Your task to perform on an android device: Go to notification settings Image 0: 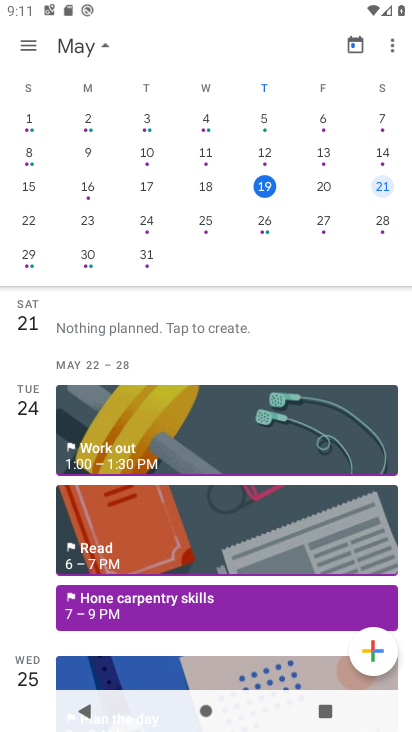
Step 0: press home button
Your task to perform on an android device: Go to notification settings Image 1: 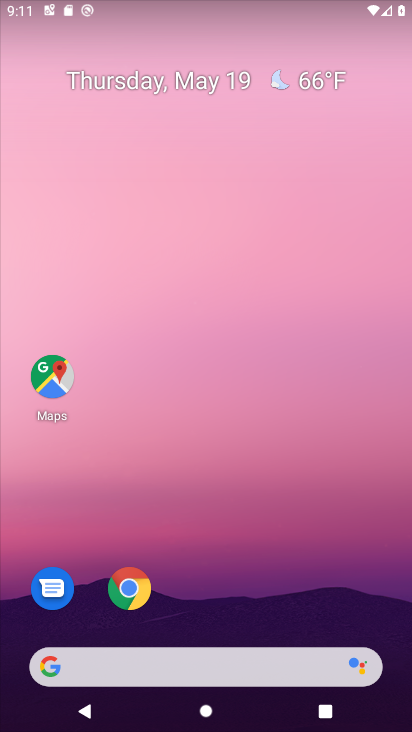
Step 1: drag from (371, 588) to (356, 169)
Your task to perform on an android device: Go to notification settings Image 2: 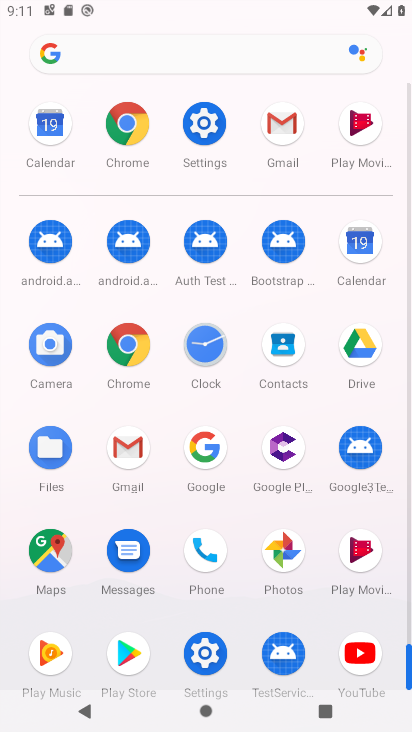
Step 2: click (210, 666)
Your task to perform on an android device: Go to notification settings Image 3: 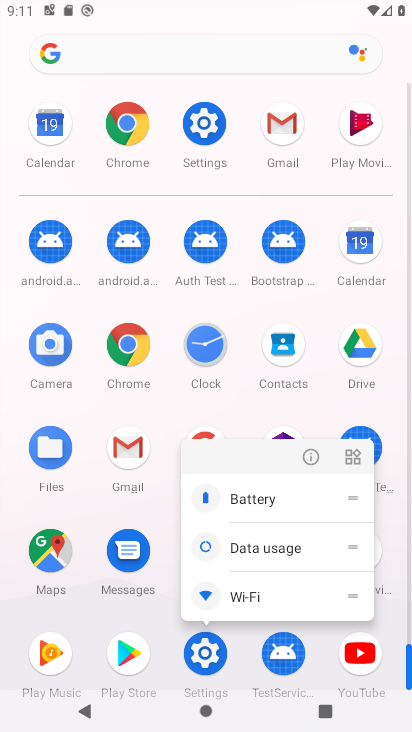
Step 3: click (210, 666)
Your task to perform on an android device: Go to notification settings Image 4: 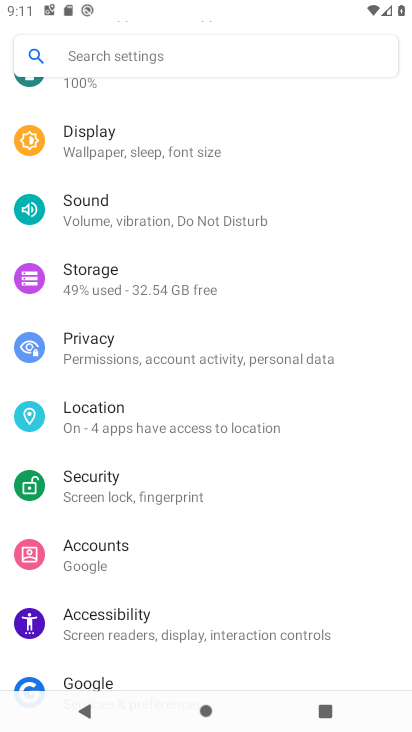
Step 4: drag from (342, 641) to (354, 466)
Your task to perform on an android device: Go to notification settings Image 5: 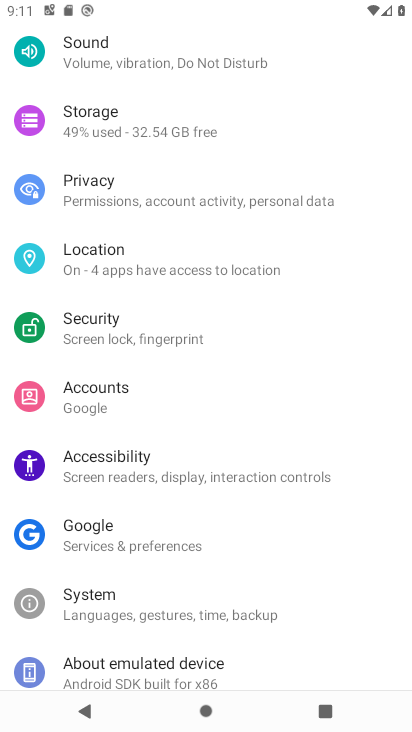
Step 5: drag from (369, 641) to (373, 445)
Your task to perform on an android device: Go to notification settings Image 6: 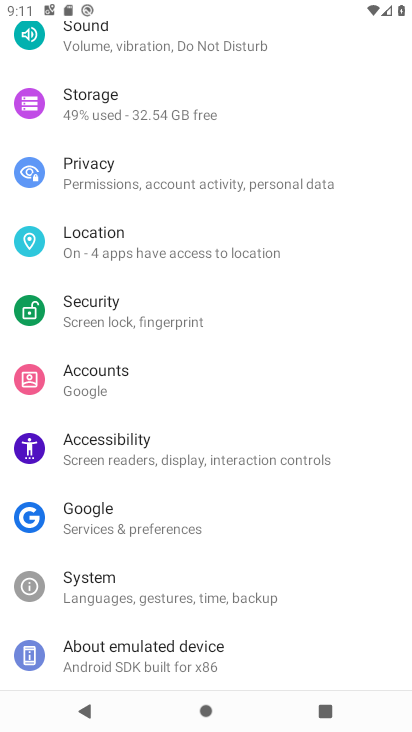
Step 6: drag from (386, 605) to (373, 409)
Your task to perform on an android device: Go to notification settings Image 7: 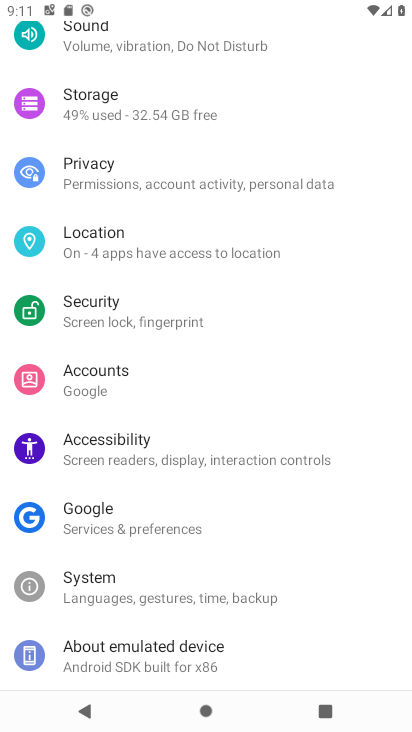
Step 7: drag from (354, 594) to (361, 465)
Your task to perform on an android device: Go to notification settings Image 8: 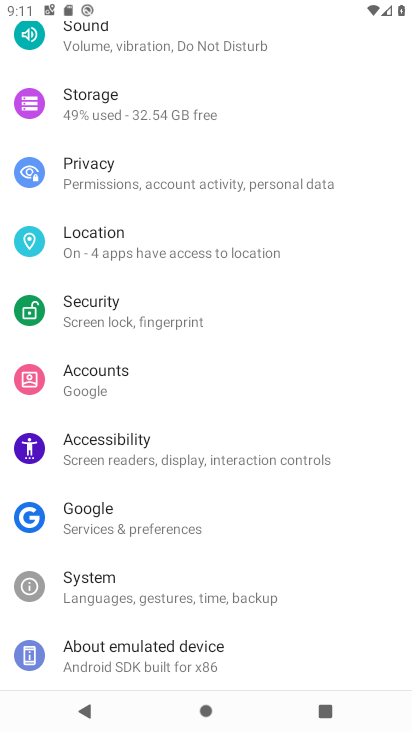
Step 8: drag from (349, 390) to (361, 483)
Your task to perform on an android device: Go to notification settings Image 9: 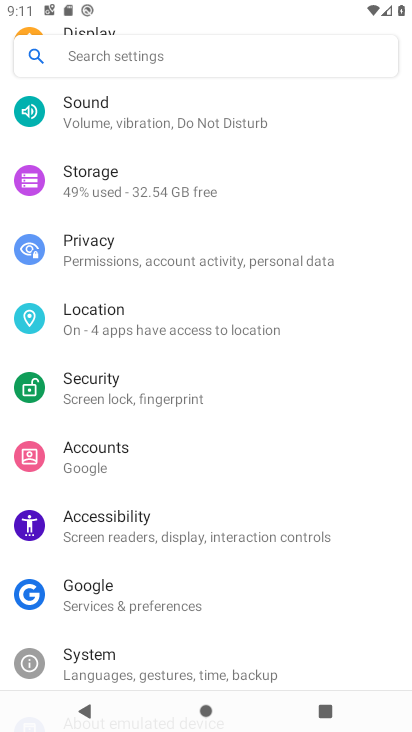
Step 9: drag from (346, 328) to (347, 443)
Your task to perform on an android device: Go to notification settings Image 10: 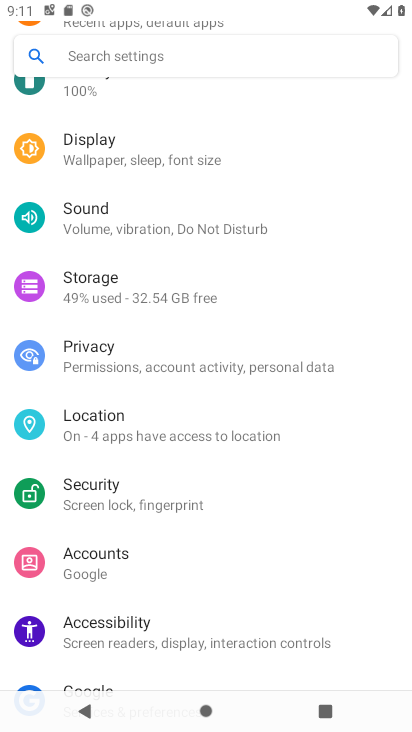
Step 10: drag from (355, 305) to (361, 418)
Your task to perform on an android device: Go to notification settings Image 11: 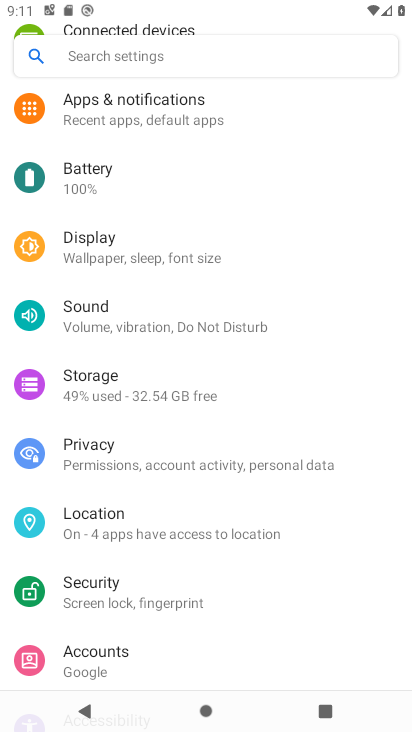
Step 11: drag from (356, 315) to (337, 404)
Your task to perform on an android device: Go to notification settings Image 12: 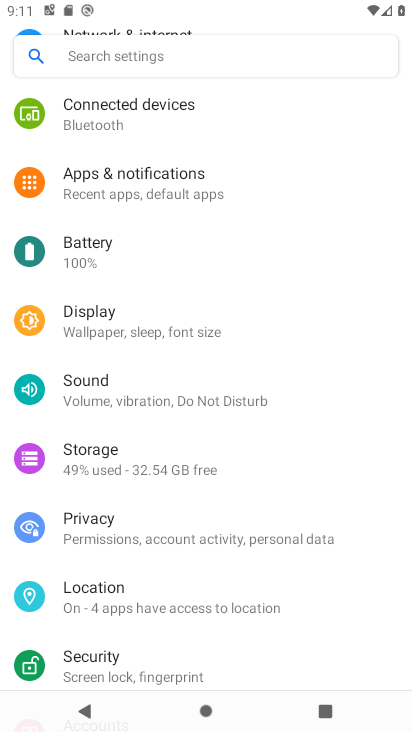
Step 12: drag from (328, 285) to (332, 394)
Your task to perform on an android device: Go to notification settings Image 13: 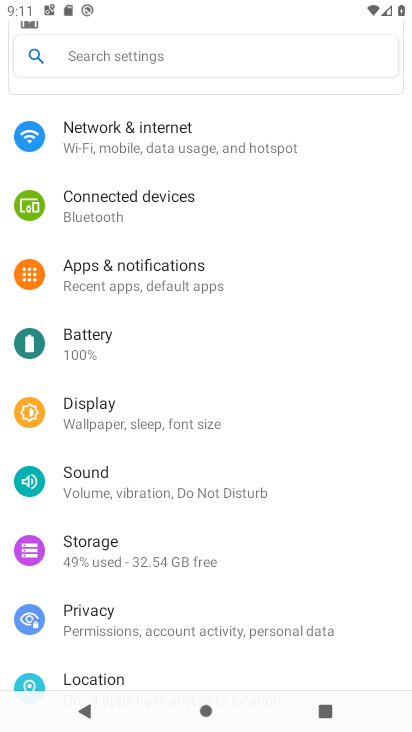
Step 13: drag from (324, 268) to (328, 382)
Your task to perform on an android device: Go to notification settings Image 14: 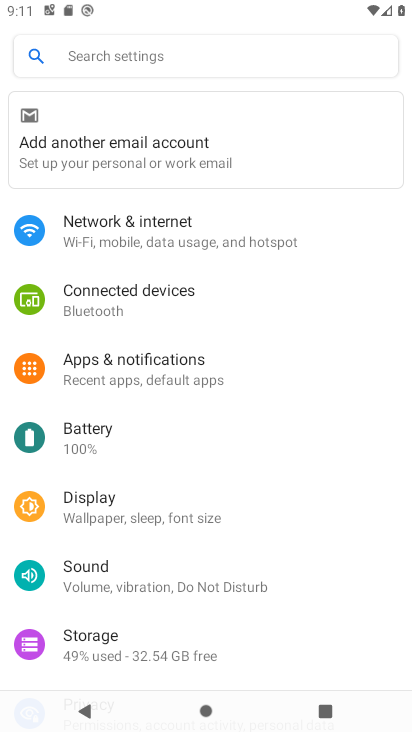
Step 14: drag from (339, 246) to (342, 351)
Your task to perform on an android device: Go to notification settings Image 15: 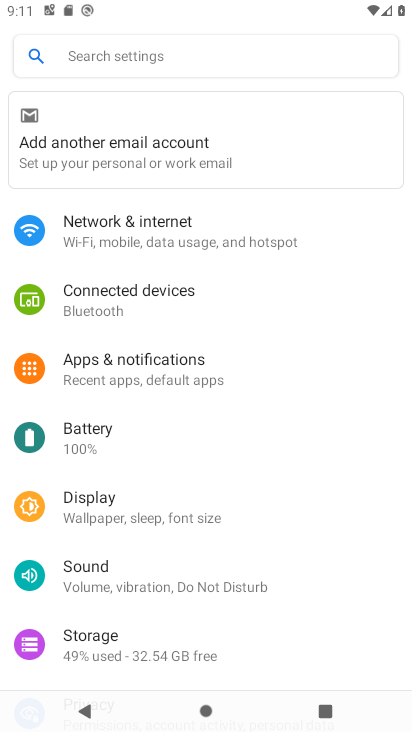
Step 15: click (209, 366)
Your task to perform on an android device: Go to notification settings Image 16: 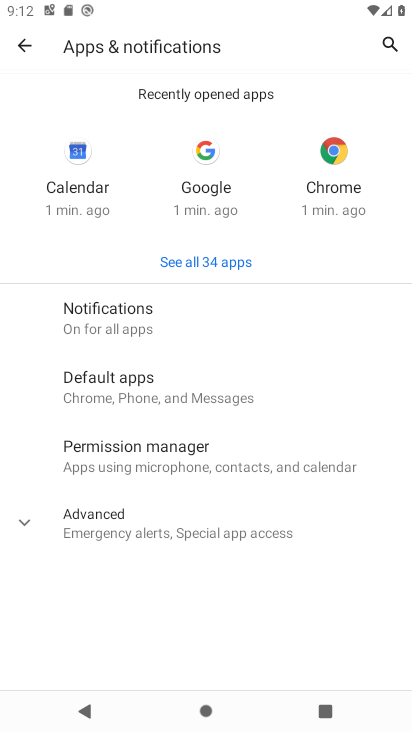
Step 16: click (136, 317)
Your task to perform on an android device: Go to notification settings Image 17: 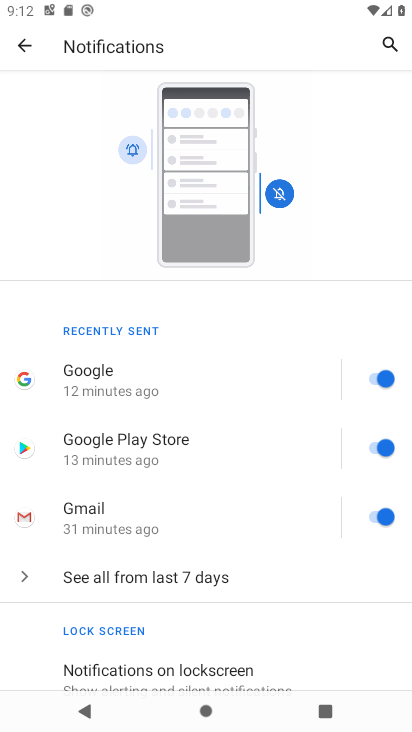
Step 17: task complete